Your task to perform on an android device: Open Google Maps and go to "Timeline" Image 0: 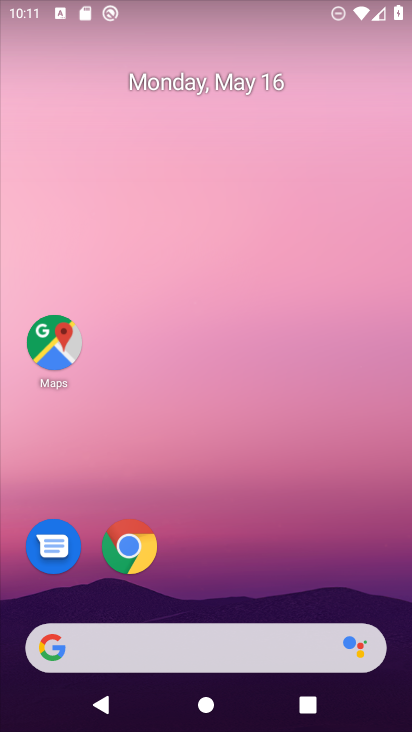
Step 0: click (65, 348)
Your task to perform on an android device: Open Google Maps and go to "Timeline" Image 1: 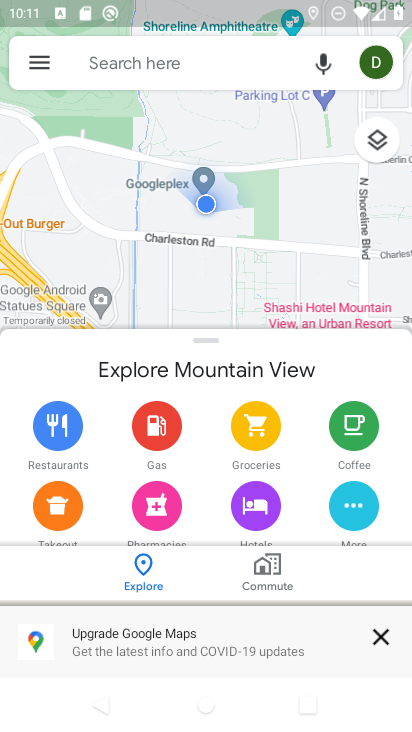
Step 1: click (36, 76)
Your task to perform on an android device: Open Google Maps and go to "Timeline" Image 2: 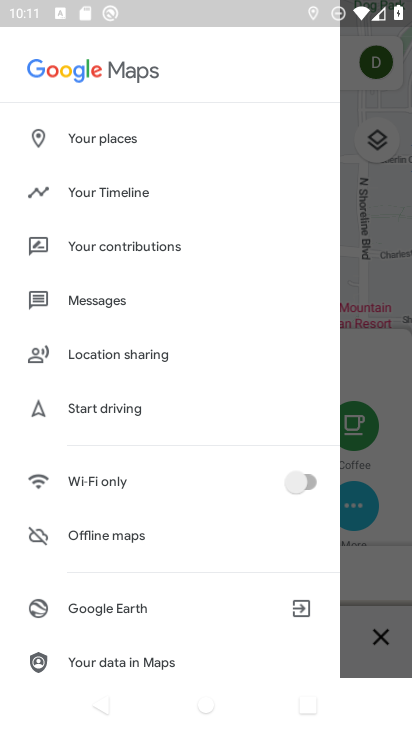
Step 2: click (141, 207)
Your task to perform on an android device: Open Google Maps and go to "Timeline" Image 3: 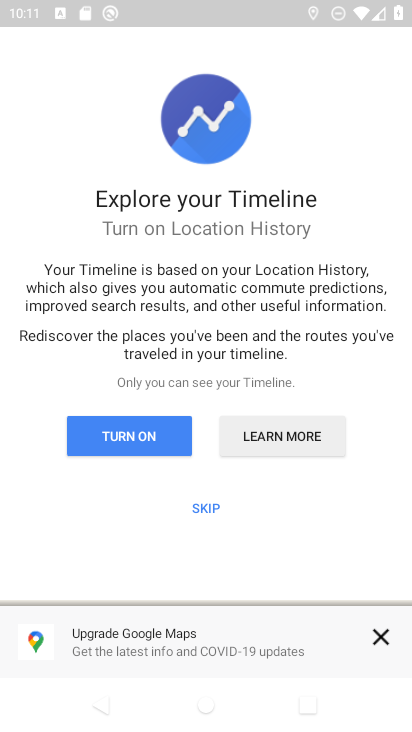
Step 3: click (122, 437)
Your task to perform on an android device: Open Google Maps and go to "Timeline" Image 4: 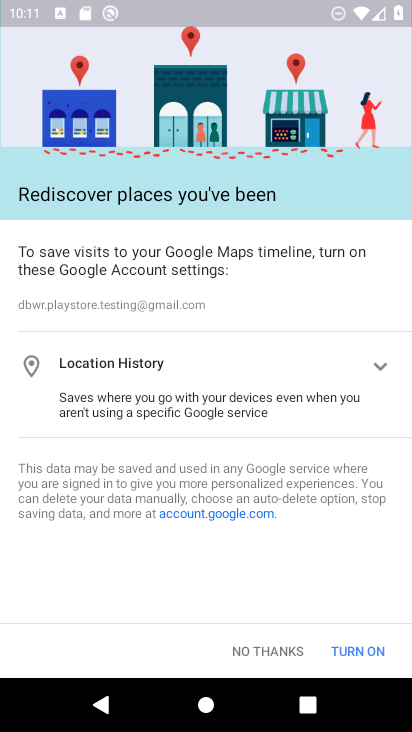
Step 4: click (363, 642)
Your task to perform on an android device: Open Google Maps and go to "Timeline" Image 5: 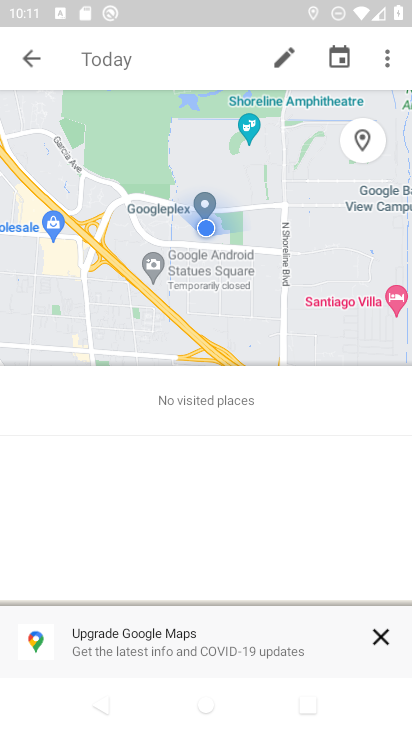
Step 5: task complete